Your task to perform on an android device: turn on translation in the chrome app Image 0: 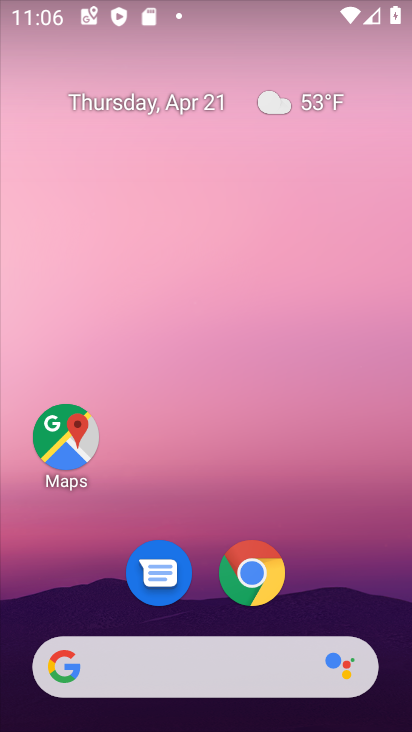
Step 0: drag from (336, 593) to (351, 111)
Your task to perform on an android device: turn on translation in the chrome app Image 1: 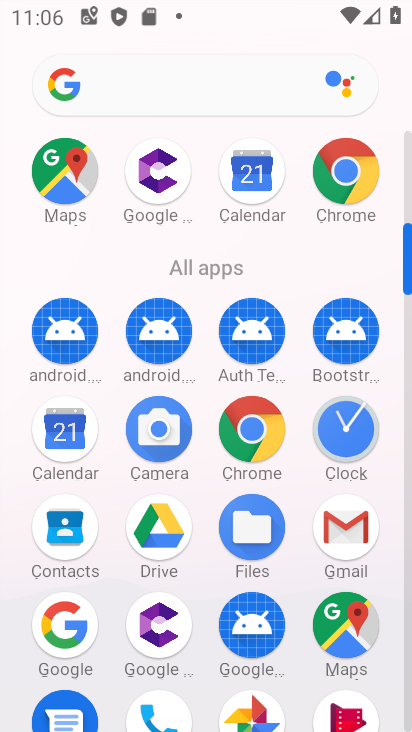
Step 1: click (255, 441)
Your task to perform on an android device: turn on translation in the chrome app Image 2: 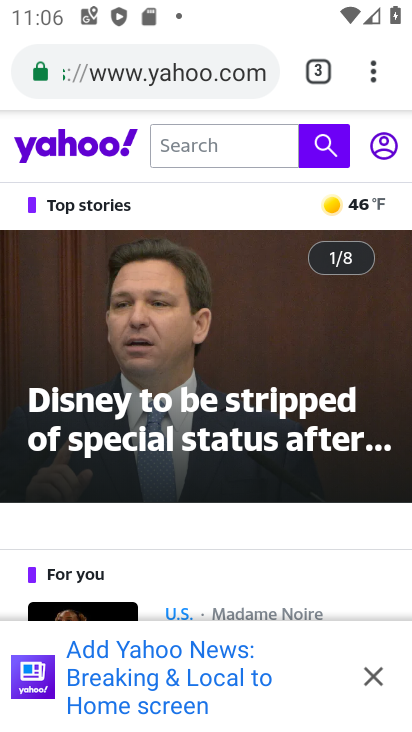
Step 2: drag from (369, 75) to (136, 558)
Your task to perform on an android device: turn on translation in the chrome app Image 3: 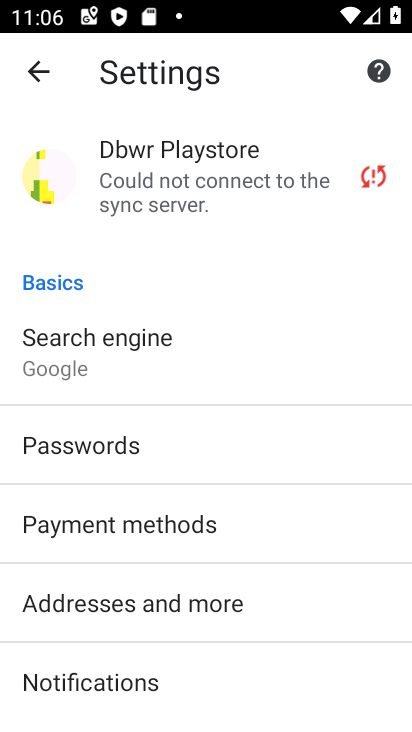
Step 3: drag from (300, 650) to (360, 274)
Your task to perform on an android device: turn on translation in the chrome app Image 4: 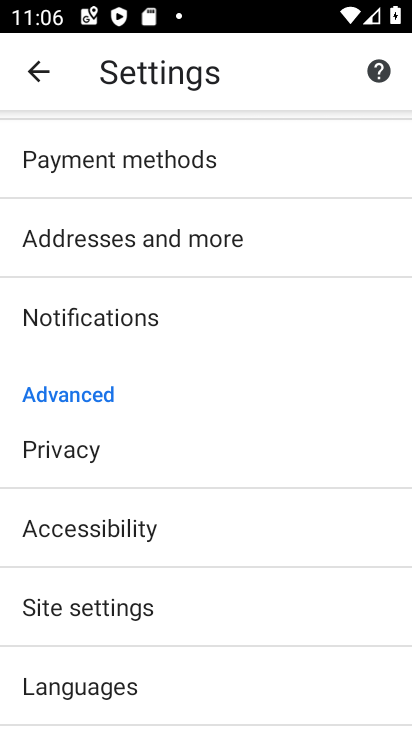
Step 4: drag from (296, 631) to (333, 339)
Your task to perform on an android device: turn on translation in the chrome app Image 5: 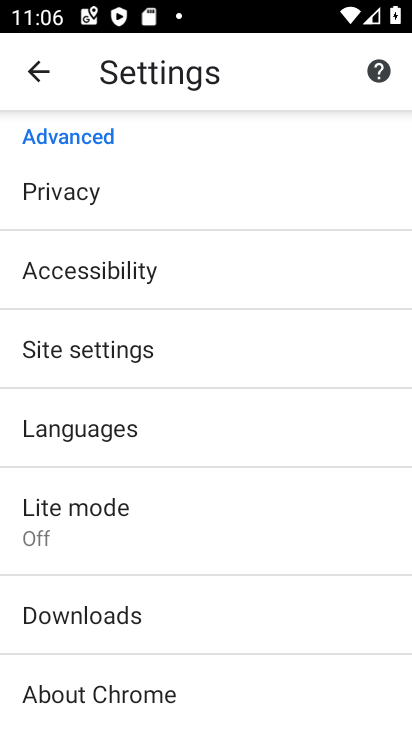
Step 5: click (128, 419)
Your task to perform on an android device: turn on translation in the chrome app Image 6: 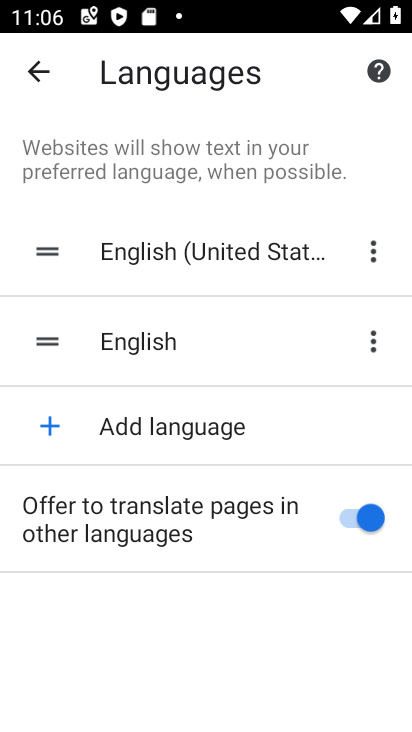
Step 6: task complete